Your task to perform on an android device: Look up the best rated coffee table on Ikea Image 0: 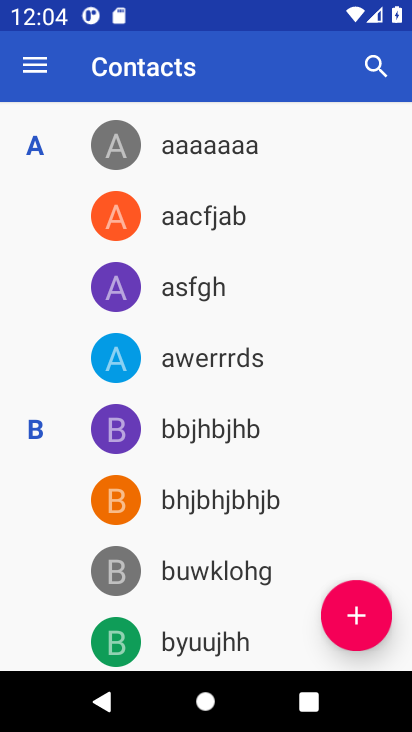
Step 0: press home button
Your task to perform on an android device: Look up the best rated coffee table on Ikea Image 1: 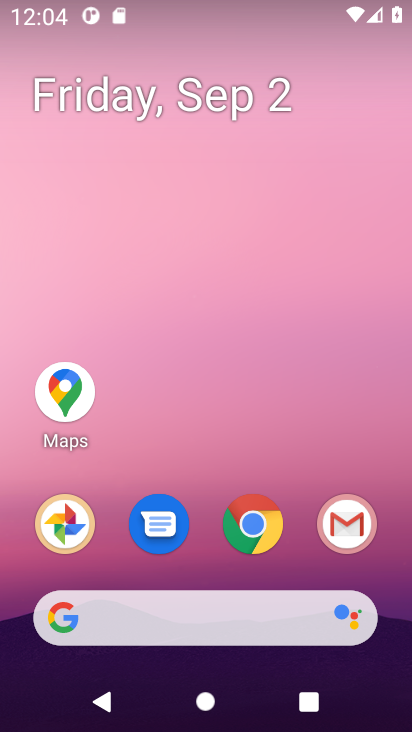
Step 1: click (279, 609)
Your task to perform on an android device: Look up the best rated coffee table on Ikea Image 2: 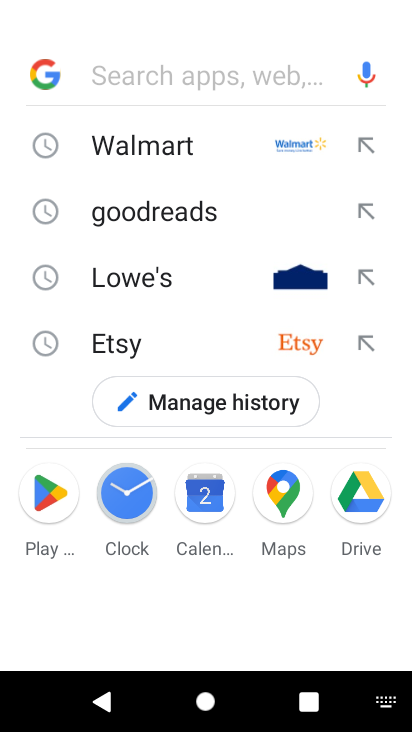
Step 2: press enter
Your task to perform on an android device: Look up the best rated coffee table on Ikea Image 3: 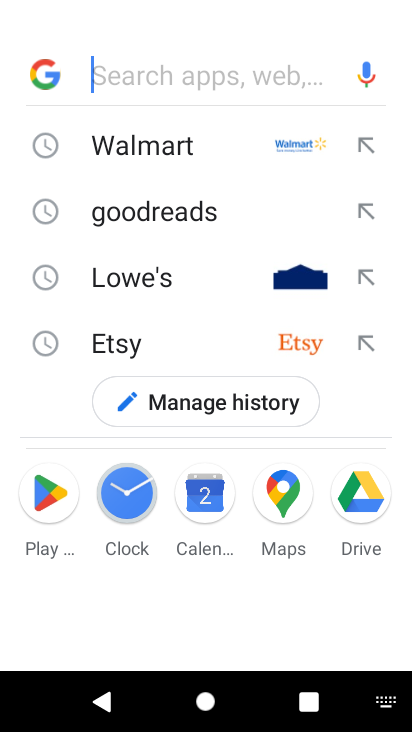
Step 3: type "ikea"
Your task to perform on an android device: Look up the best rated coffee table on Ikea Image 4: 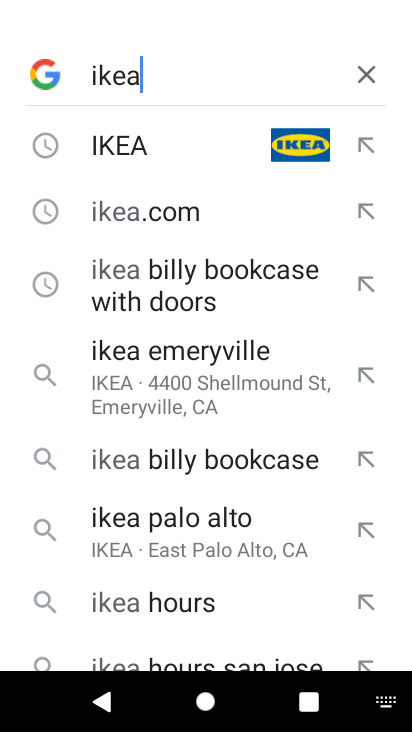
Step 4: click (137, 150)
Your task to perform on an android device: Look up the best rated coffee table on Ikea Image 5: 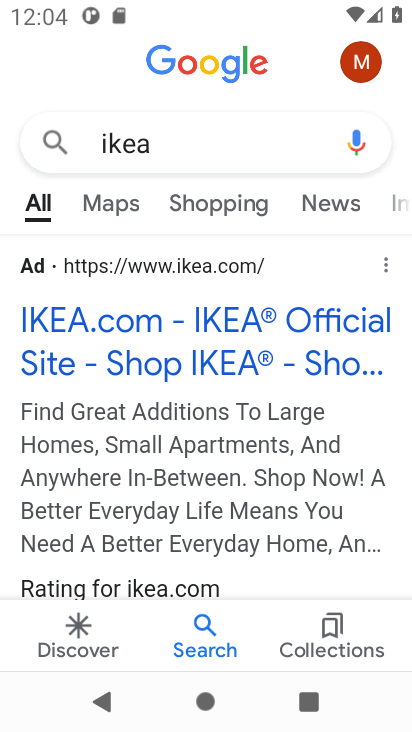
Step 5: click (211, 354)
Your task to perform on an android device: Look up the best rated coffee table on Ikea Image 6: 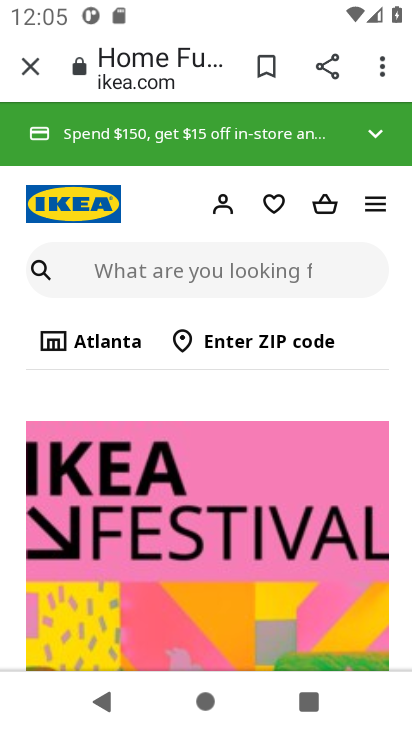
Step 6: click (195, 273)
Your task to perform on an android device: Look up the best rated coffee table on Ikea Image 7: 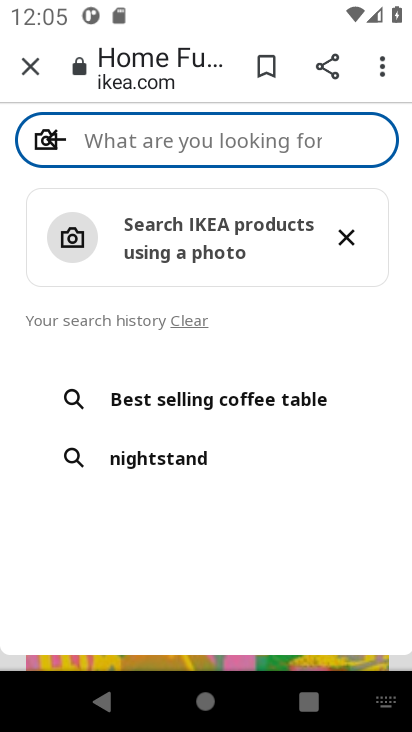
Step 7: press enter
Your task to perform on an android device: Look up the best rated coffee table on Ikea Image 8: 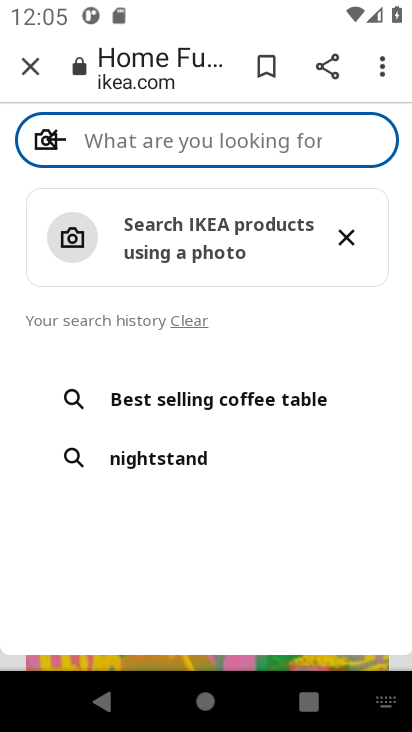
Step 8: type "best rated coffee table"
Your task to perform on an android device: Look up the best rated coffee table on Ikea Image 9: 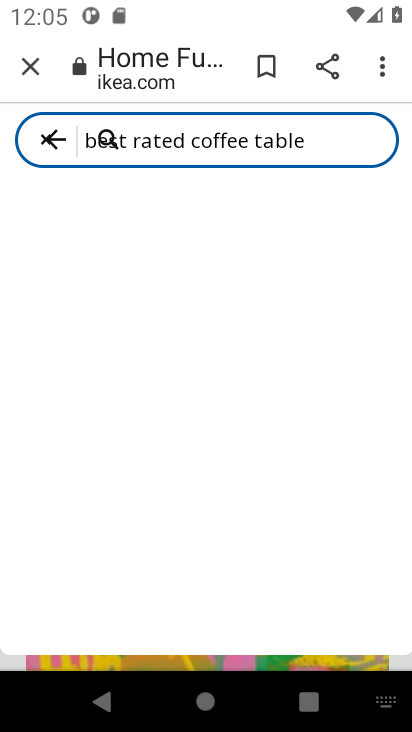
Step 9: click (41, 132)
Your task to perform on an android device: Look up the best rated coffee table on Ikea Image 10: 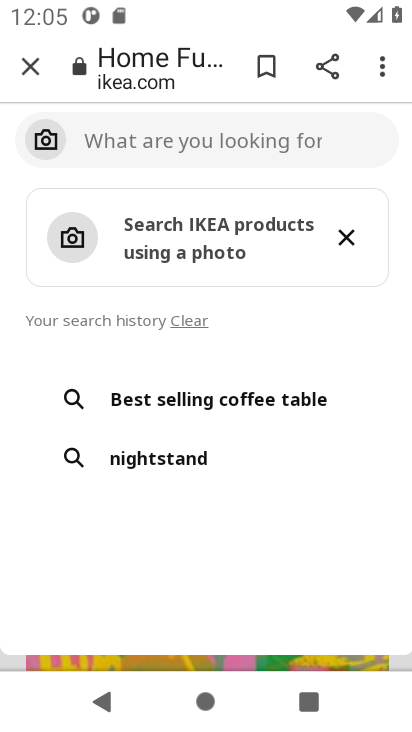
Step 10: click (271, 397)
Your task to perform on an android device: Look up the best rated coffee table on Ikea Image 11: 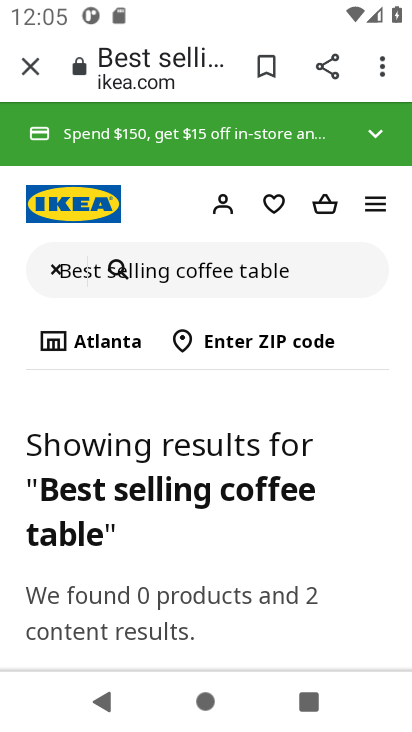
Step 11: task complete